Your task to perform on an android device: star an email in the gmail app Image 0: 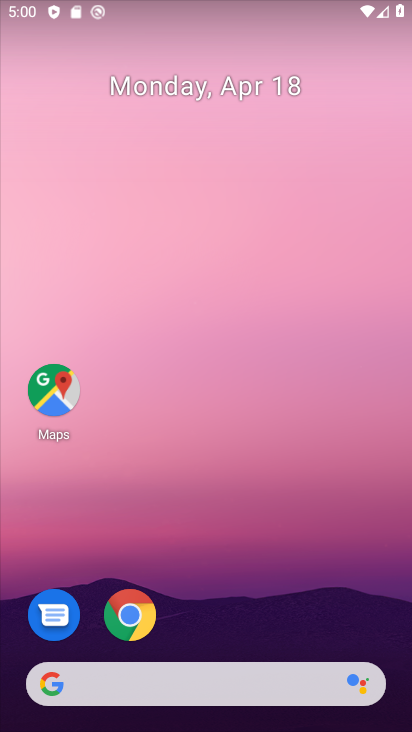
Step 0: drag from (245, 624) to (215, 102)
Your task to perform on an android device: star an email in the gmail app Image 1: 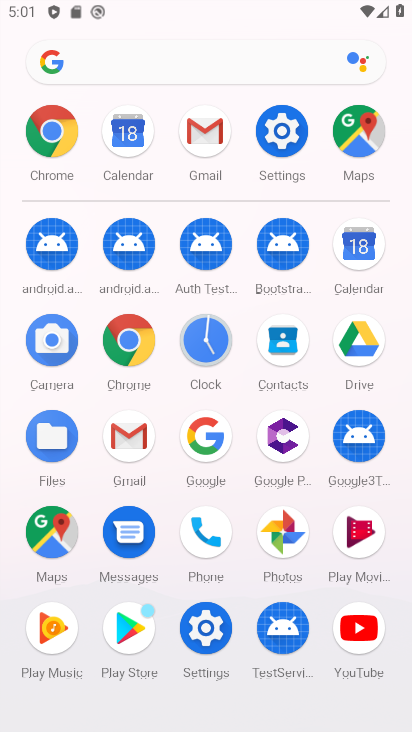
Step 1: click (200, 136)
Your task to perform on an android device: star an email in the gmail app Image 2: 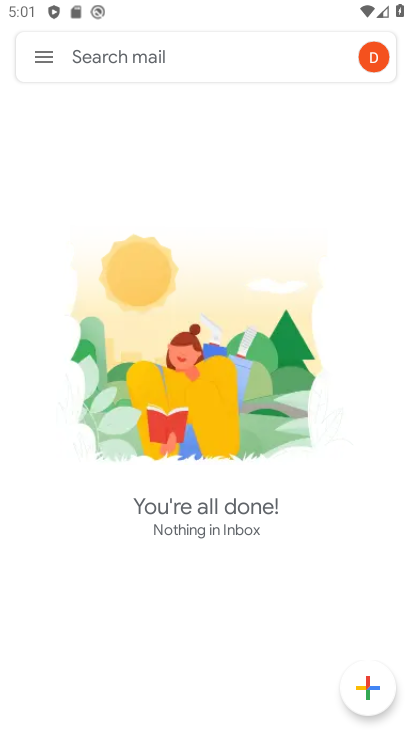
Step 2: click (53, 57)
Your task to perform on an android device: star an email in the gmail app Image 3: 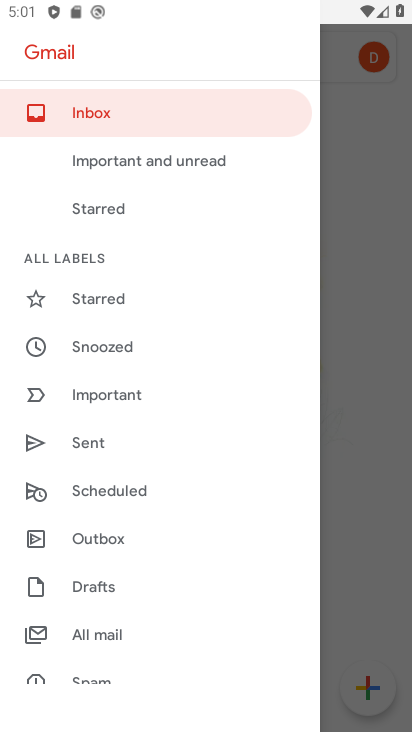
Step 3: task complete